Your task to perform on an android device: all mails in gmail Image 0: 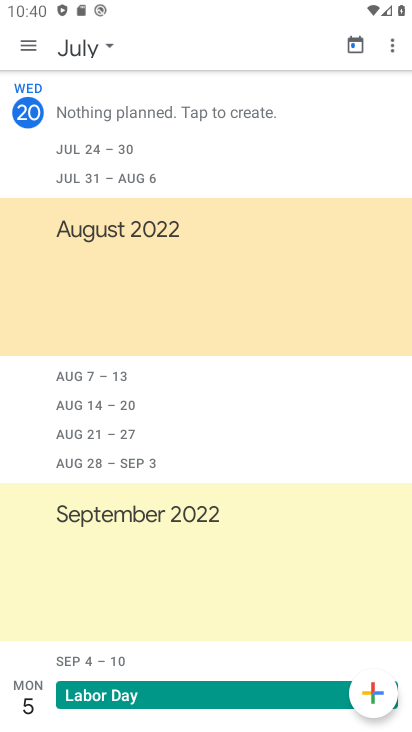
Step 0: press home button
Your task to perform on an android device: all mails in gmail Image 1: 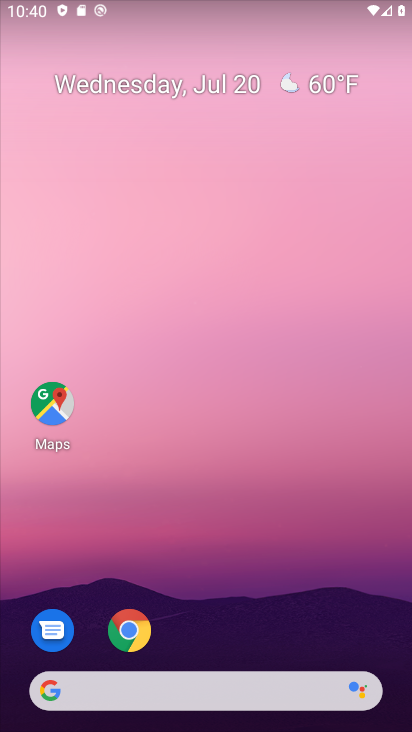
Step 1: drag from (197, 686) to (215, 20)
Your task to perform on an android device: all mails in gmail Image 2: 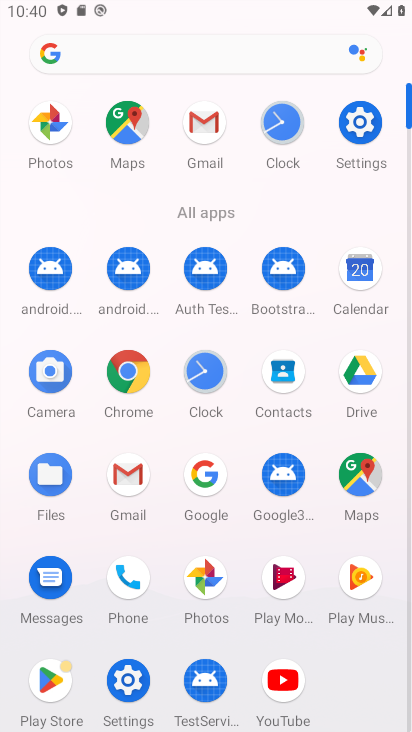
Step 2: click (128, 477)
Your task to perform on an android device: all mails in gmail Image 3: 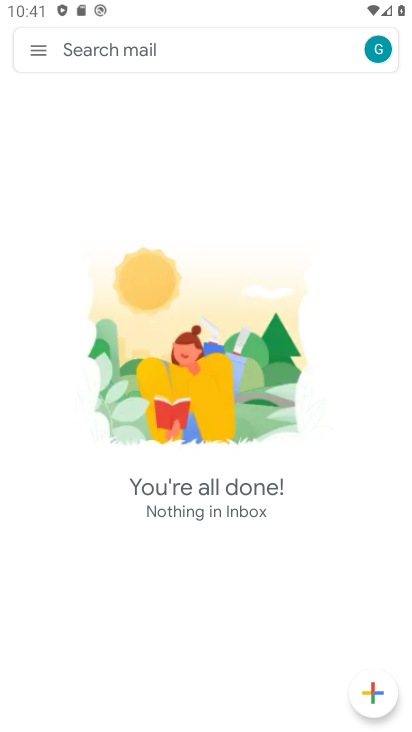
Step 3: click (35, 52)
Your task to perform on an android device: all mails in gmail Image 4: 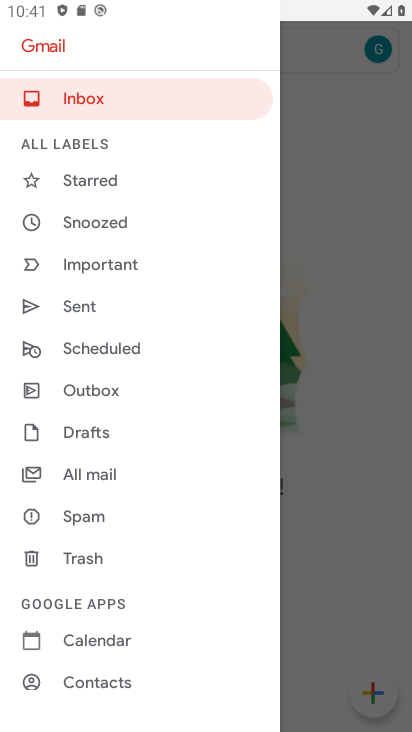
Step 4: click (76, 476)
Your task to perform on an android device: all mails in gmail Image 5: 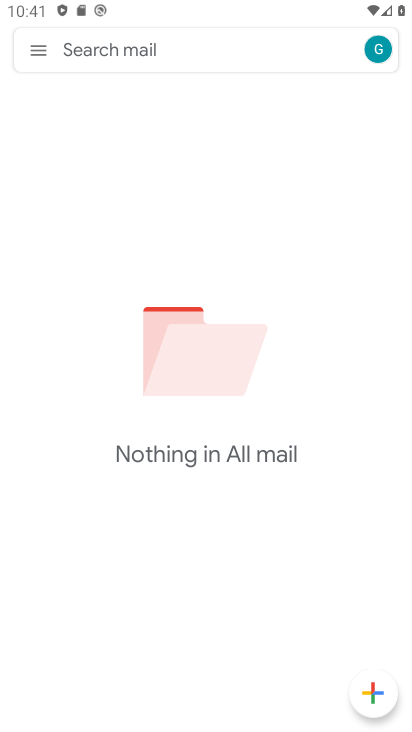
Step 5: task complete